Your task to perform on an android device: make emails show in primary in the gmail app Image 0: 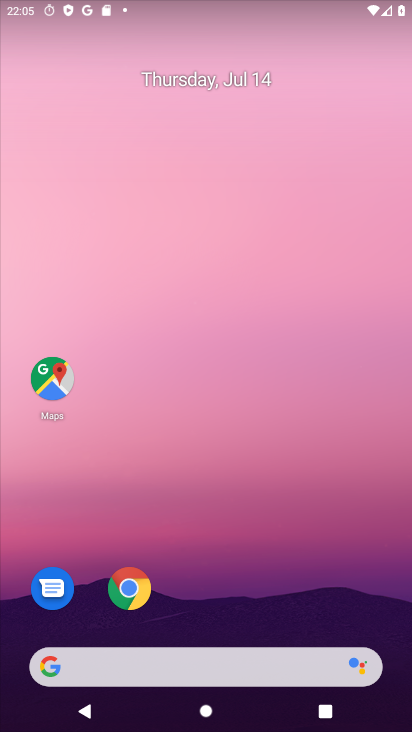
Step 0: drag from (221, 632) to (224, 72)
Your task to perform on an android device: make emails show in primary in the gmail app Image 1: 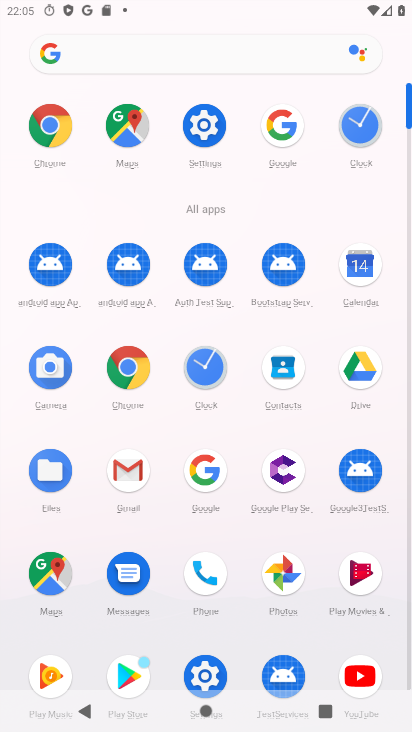
Step 1: click (126, 477)
Your task to perform on an android device: make emails show in primary in the gmail app Image 2: 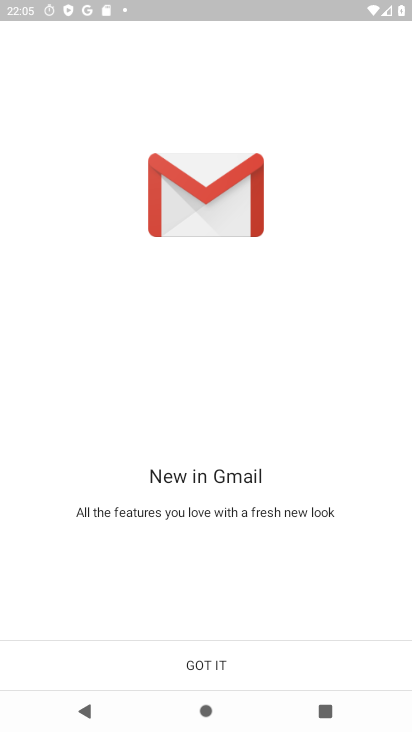
Step 2: click (209, 667)
Your task to perform on an android device: make emails show in primary in the gmail app Image 3: 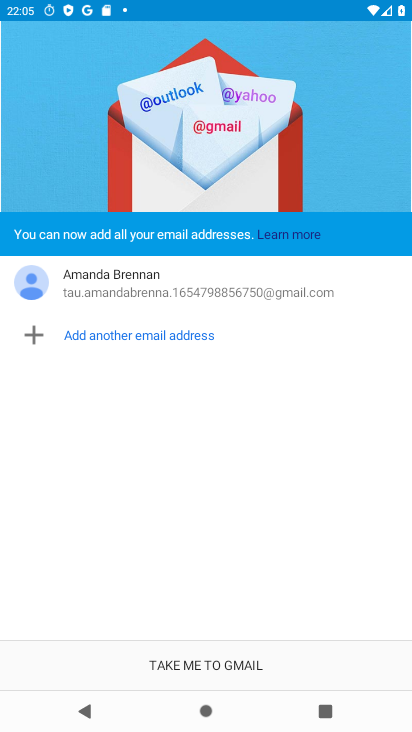
Step 3: click (217, 664)
Your task to perform on an android device: make emails show in primary in the gmail app Image 4: 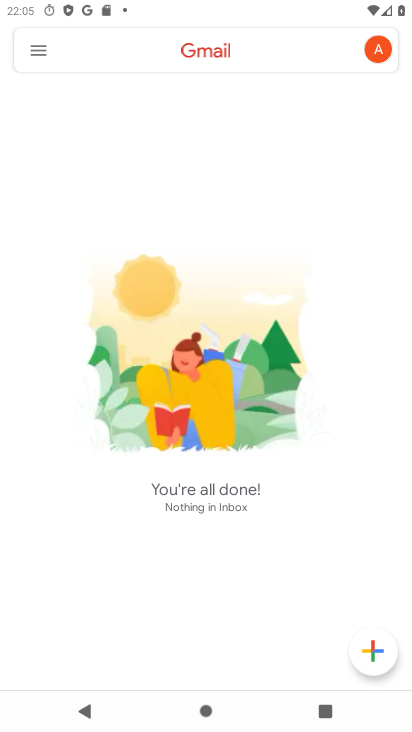
Step 4: click (34, 56)
Your task to perform on an android device: make emails show in primary in the gmail app Image 5: 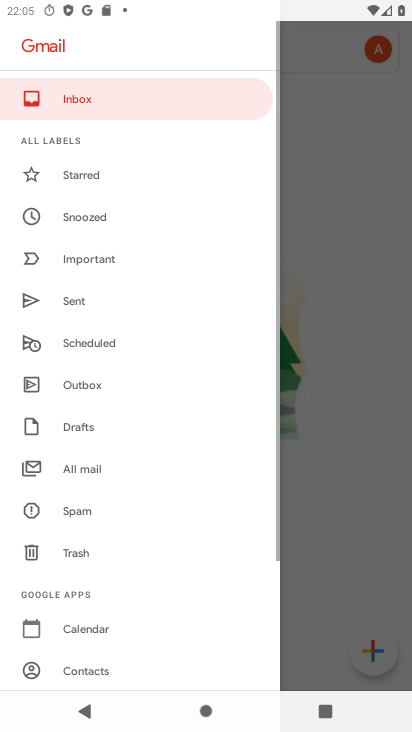
Step 5: drag from (106, 659) to (138, 168)
Your task to perform on an android device: make emails show in primary in the gmail app Image 6: 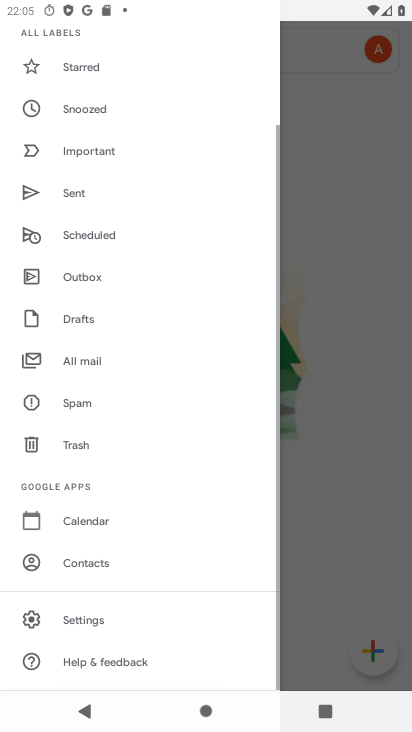
Step 6: click (93, 619)
Your task to perform on an android device: make emails show in primary in the gmail app Image 7: 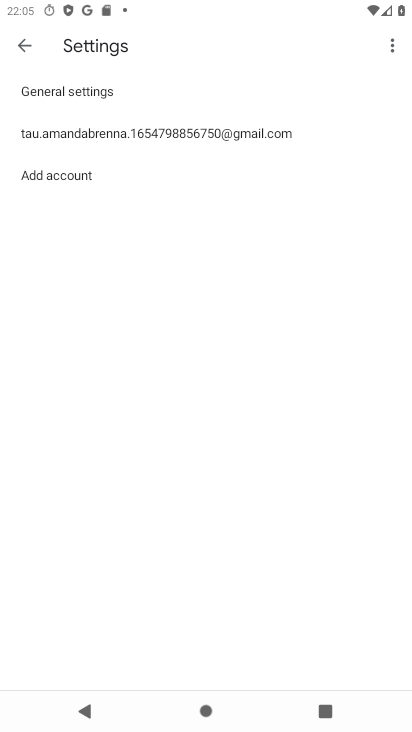
Step 7: click (80, 137)
Your task to perform on an android device: make emails show in primary in the gmail app Image 8: 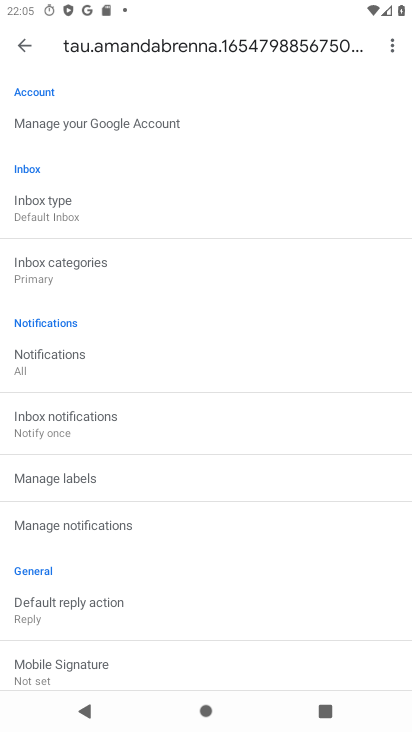
Step 8: task complete